Your task to perform on an android device: Open Youtube and go to the subscriptions tab Image 0: 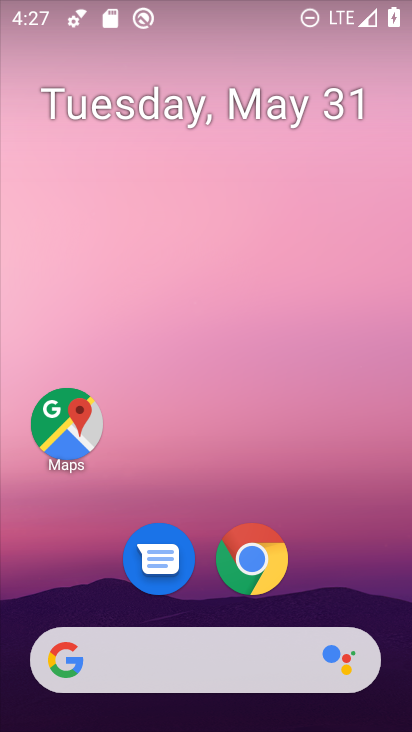
Step 0: click (244, 164)
Your task to perform on an android device: Open Youtube and go to the subscriptions tab Image 1: 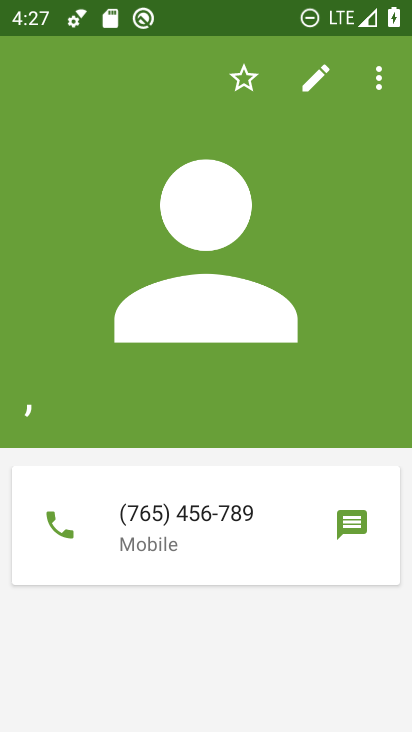
Step 1: press home button
Your task to perform on an android device: Open Youtube and go to the subscriptions tab Image 2: 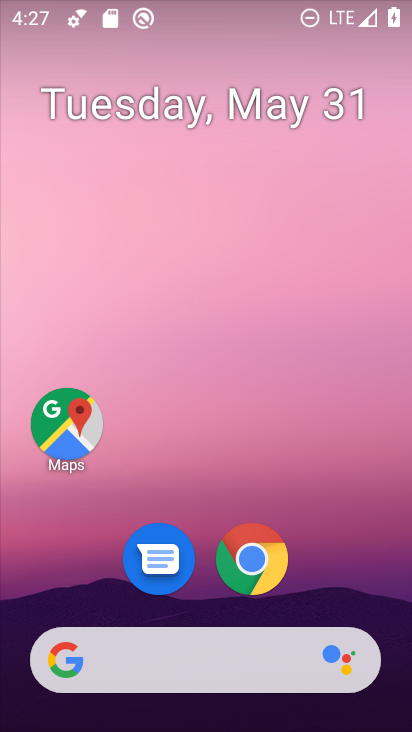
Step 2: drag from (253, 714) to (260, 117)
Your task to perform on an android device: Open Youtube and go to the subscriptions tab Image 3: 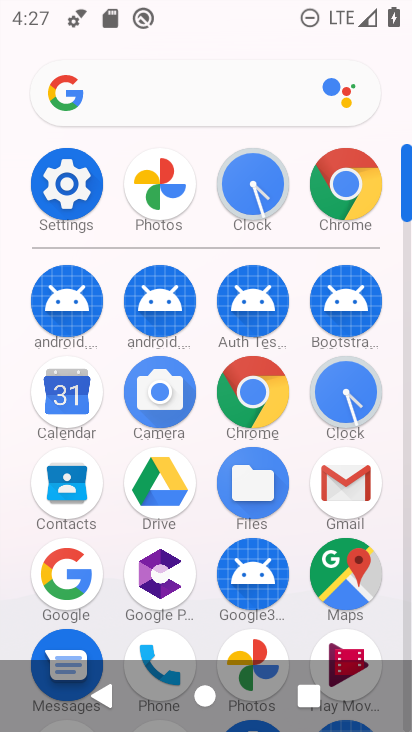
Step 3: drag from (286, 623) to (313, 174)
Your task to perform on an android device: Open Youtube and go to the subscriptions tab Image 4: 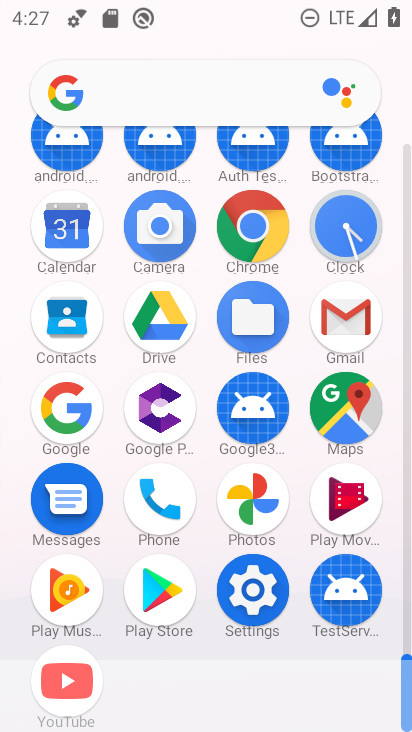
Step 4: click (72, 679)
Your task to perform on an android device: Open Youtube and go to the subscriptions tab Image 5: 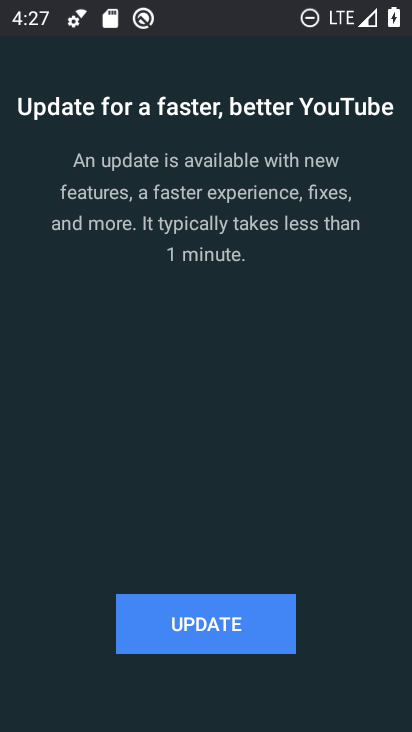
Step 5: click (204, 634)
Your task to perform on an android device: Open Youtube and go to the subscriptions tab Image 6: 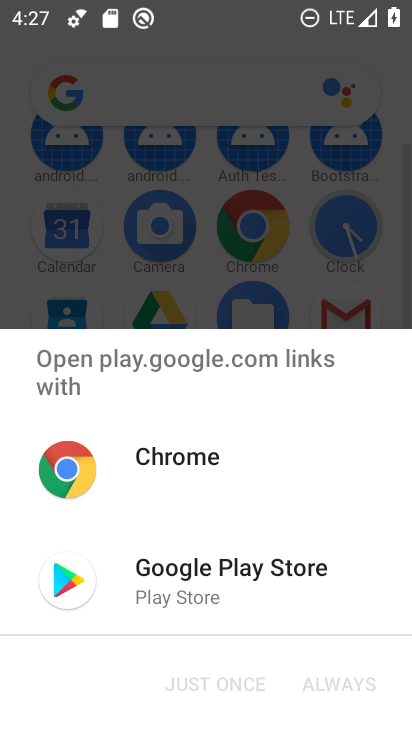
Step 6: click (163, 568)
Your task to perform on an android device: Open Youtube and go to the subscriptions tab Image 7: 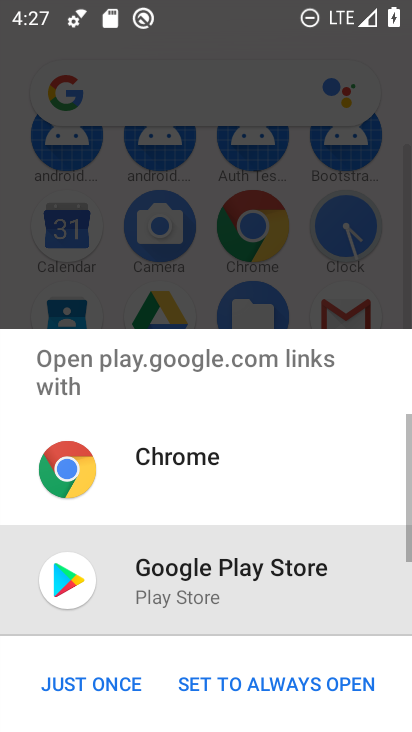
Step 7: click (130, 679)
Your task to perform on an android device: Open Youtube and go to the subscriptions tab Image 8: 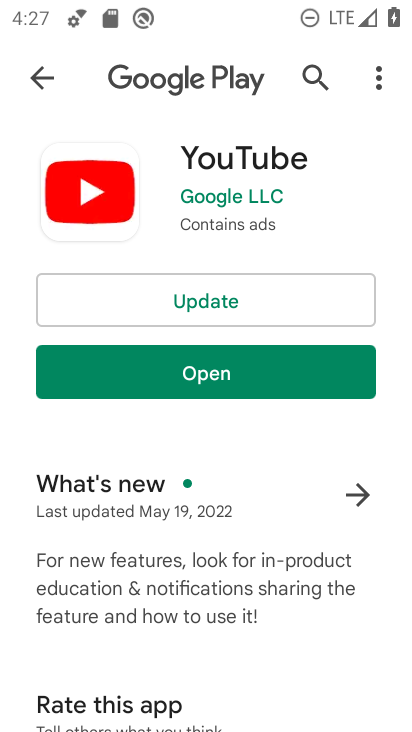
Step 8: click (218, 298)
Your task to perform on an android device: Open Youtube and go to the subscriptions tab Image 9: 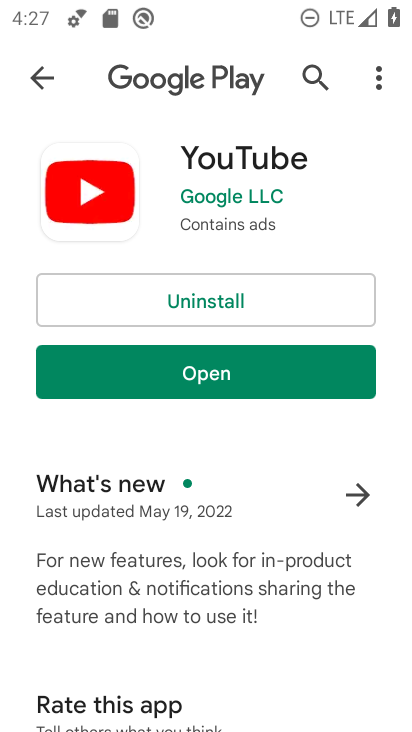
Step 9: click (208, 367)
Your task to perform on an android device: Open Youtube and go to the subscriptions tab Image 10: 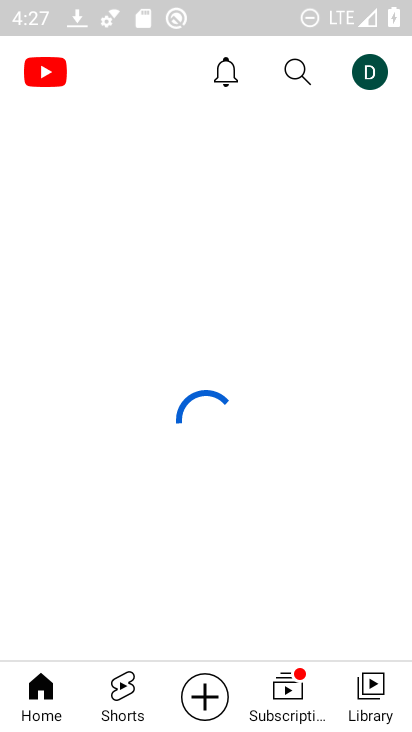
Step 10: click (278, 689)
Your task to perform on an android device: Open Youtube and go to the subscriptions tab Image 11: 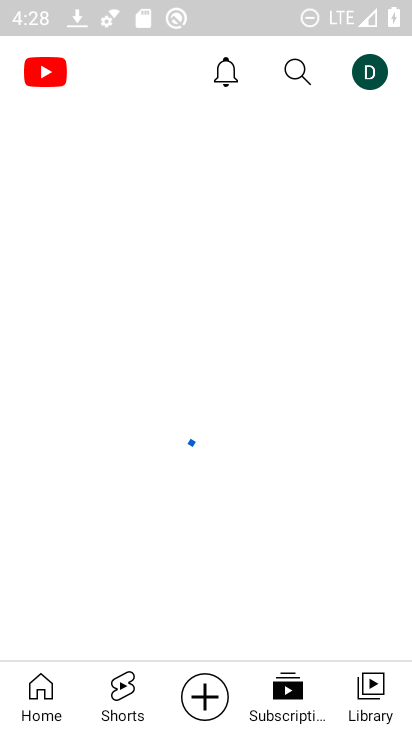
Step 11: task complete